Your task to perform on an android device: visit the assistant section in the google photos Image 0: 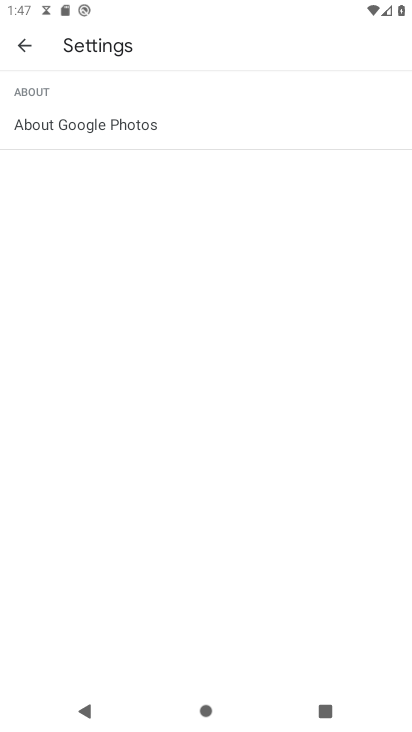
Step 0: press home button
Your task to perform on an android device: visit the assistant section in the google photos Image 1: 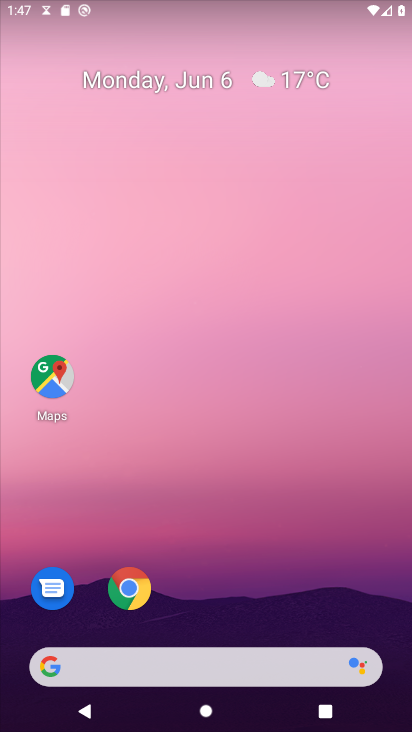
Step 1: drag from (196, 607) to (224, 429)
Your task to perform on an android device: visit the assistant section in the google photos Image 2: 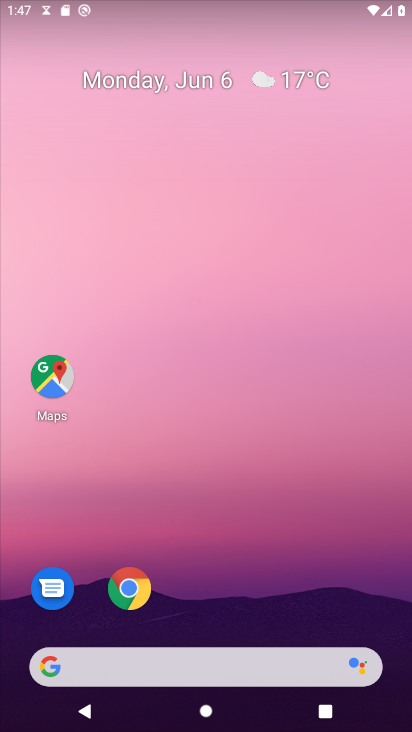
Step 2: drag from (202, 633) to (227, 316)
Your task to perform on an android device: visit the assistant section in the google photos Image 3: 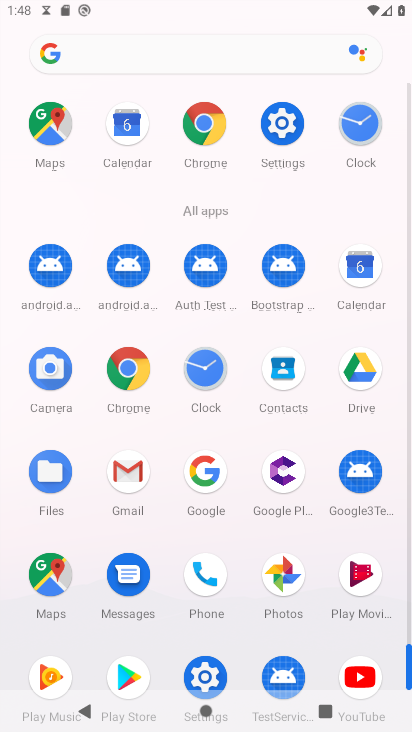
Step 3: click (286, 580)
Your task to perform on an android device: visit the assistant section in the google photos Image 4: 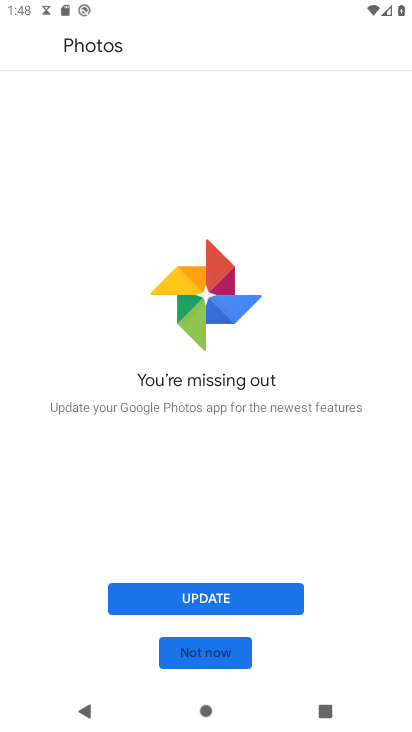
Step 4: click (186, 598)
Your task to perform on an android device: visit the assistant section in the google photos Image 5: 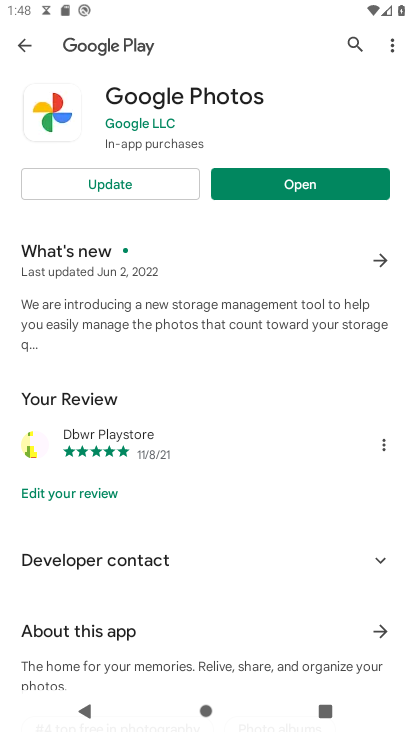
Step 5: click (122, 176)
Your task to perform on an android device: visit the assistant section in the google photos Image 6: 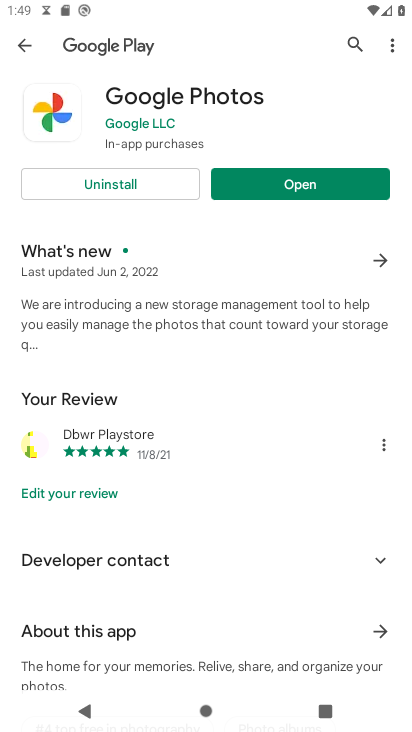
Step 6: click (300, 178)
Your task to perform on an android device: visit the assistant section in the google photos Image 7: 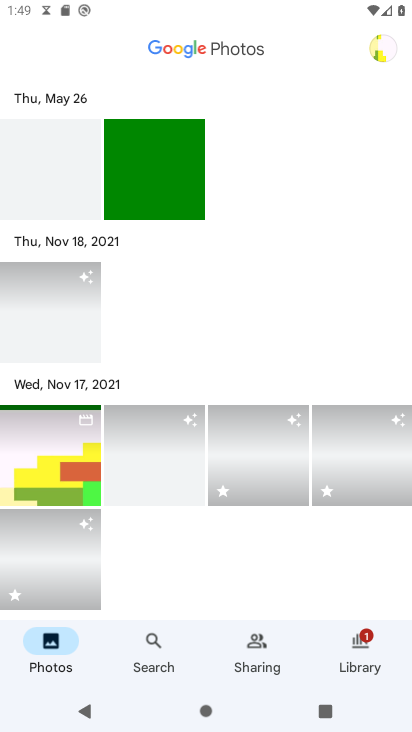
Step 7: task complete